Your task to perform on an android device: change notifications settings Image 0: 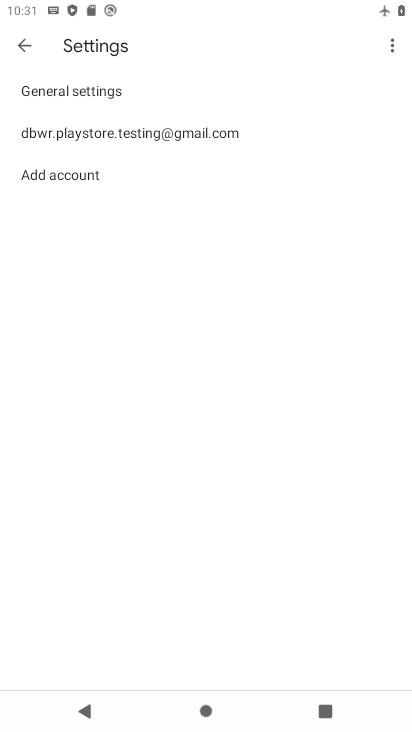
Step 0: press home button
Your task to perform on an android device: change notifications settings Image 1: 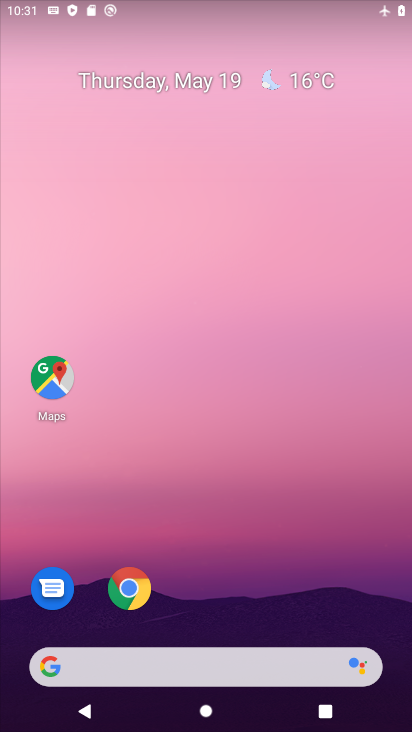
Step 1: drag from (268, 562) to (334, 185)
Your task to perform on an android device: change notifications settings Image 2: 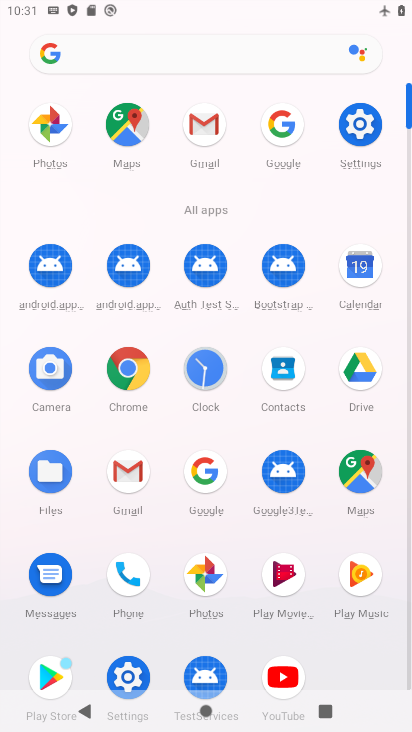
Step 2: click (373, 139)
Your task to perform on an android device: change notifications settings Image 3: 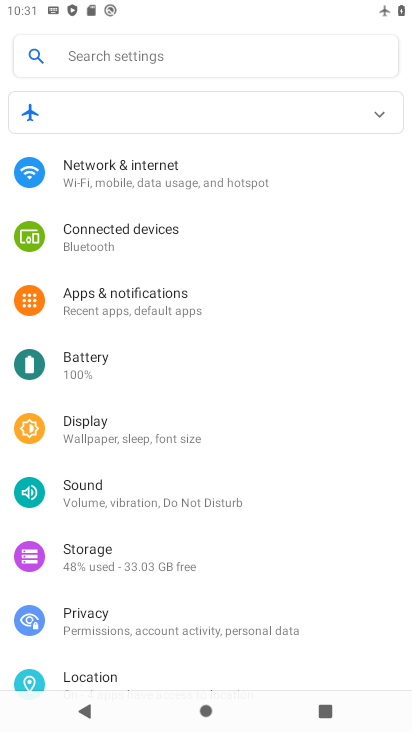
Step 3: click (232, 294)
Your task to perform on an android device: change notifications settings Image 4: 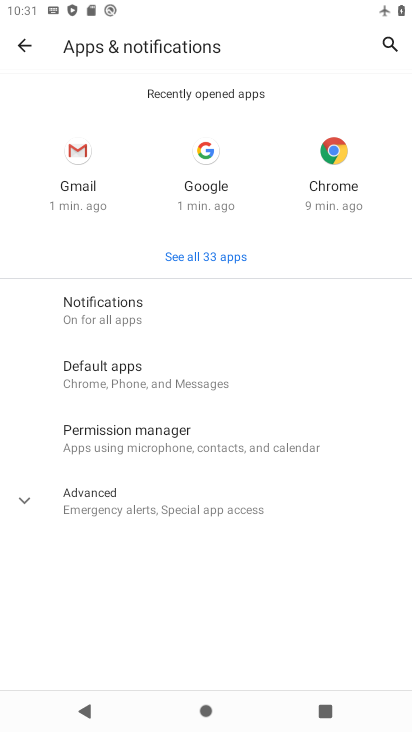
Step 4: click (188, 329)
Your task to perform on an android device: change notifications settings Image 5: 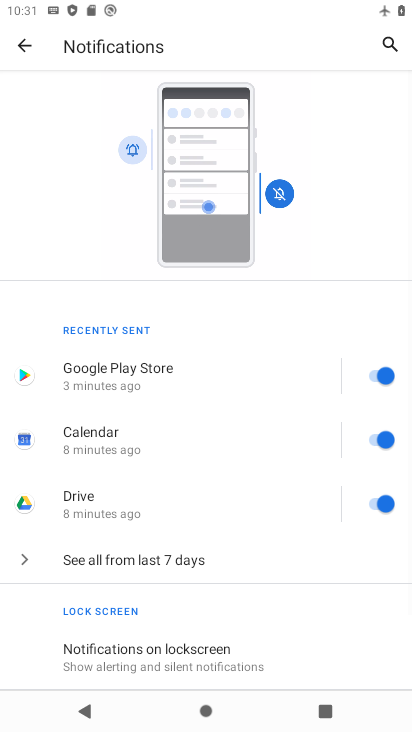
Step 5: drag from (188, 568) to (248, 309)
Your task to perform on an android device: change notifications settings Image 6: 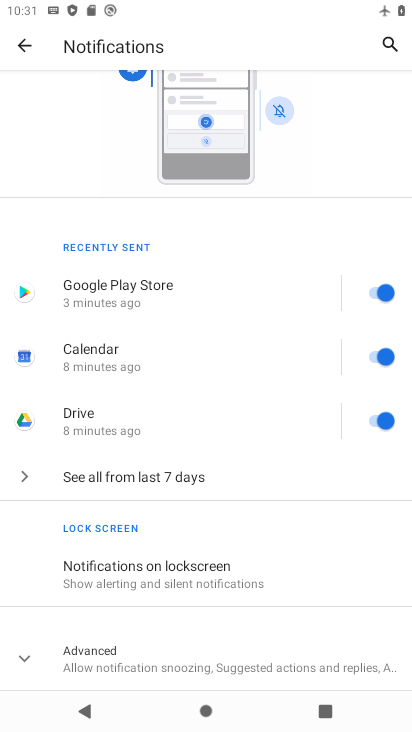
Step 6: click (155, 638)
Your task to perform on an android device: change notifications settings Image 7: 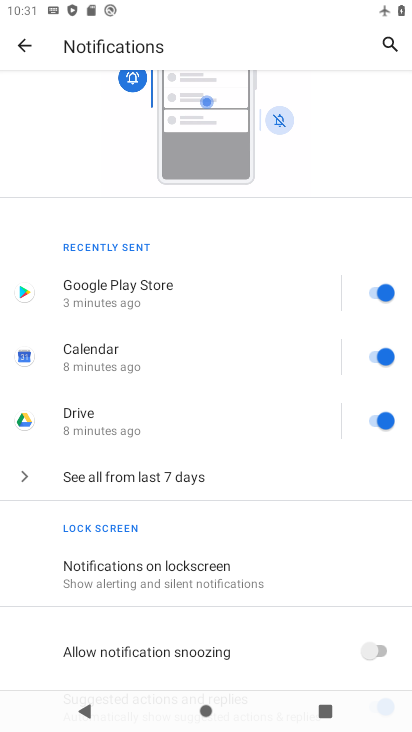
Step 7: drag from (167, 601) to (264, 225)
Your task to perform on an android device: change notifications settings Image 8: 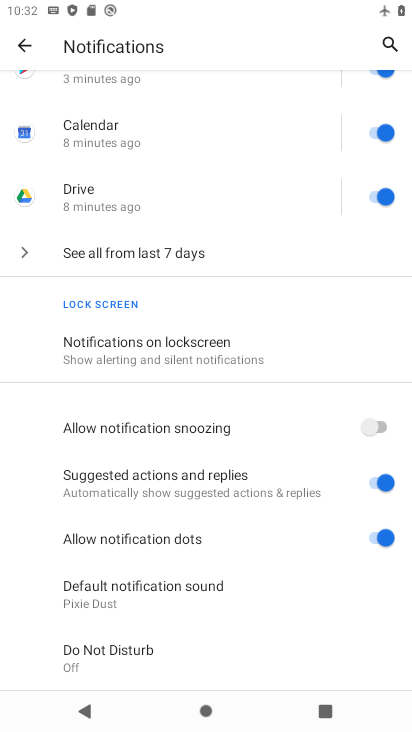
Step 8: click (375, 424)
Your task to perform on an android device: change notifications settings Image 9: 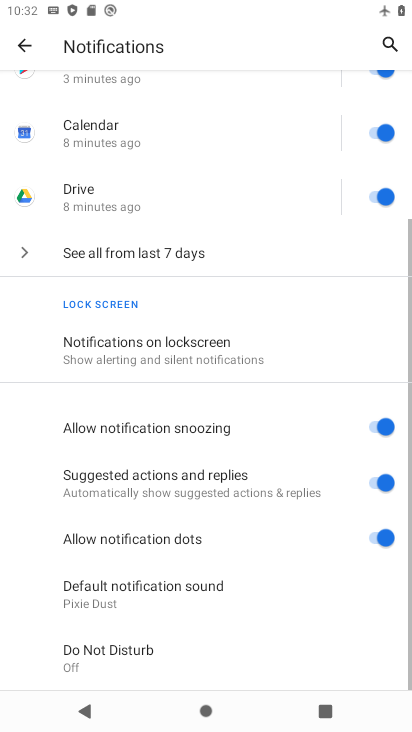
Step 9: click (389, 483)
Your task to perform on an android device: change notifications settings Image 10: 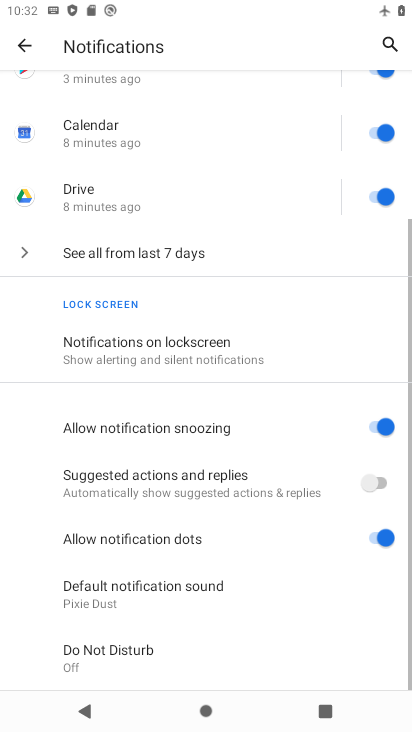
Step 10: click (390, 532)
Your task to perform on an android device: change notifications settings Image 11: 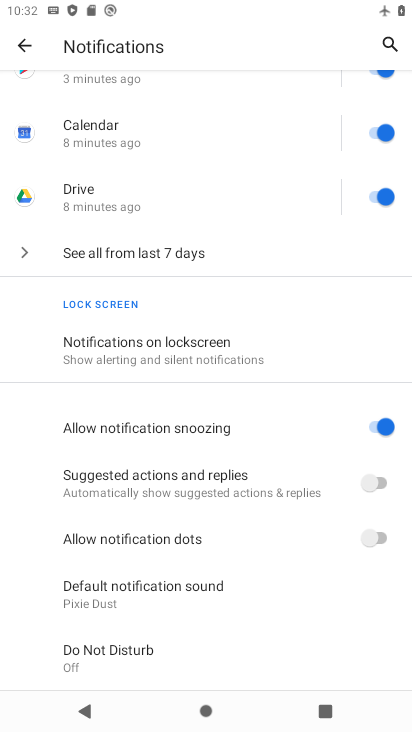
Step 11: task complete